Your task to perform on an android device: Do I have any events this weekend? Image 0: 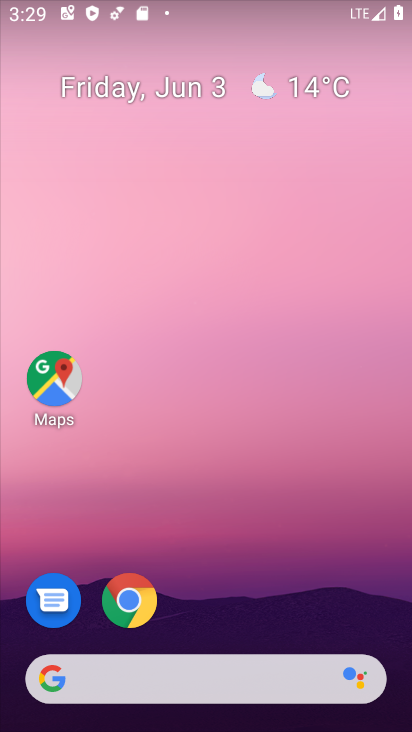
Step 0: drag from (347, 563) to (381, 147)
Your task to perform on an android device: Do I have any events this weekend? Image 1: 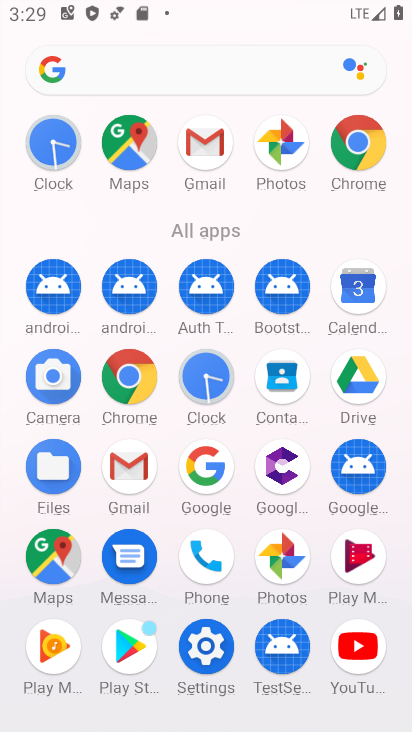
Step 1: click (353, 298)
Your task to perform on an android device: Do I have any events this weekend? Image 2: 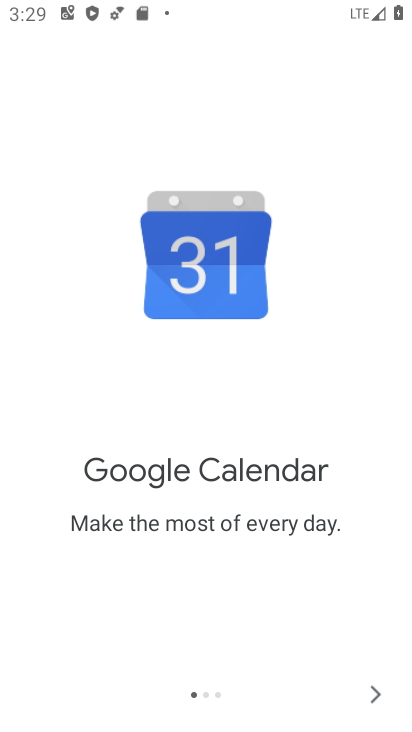
Step 2: click (371, 703)
Your task to perform on an android device: Do I have any events this weekend? Image 3: 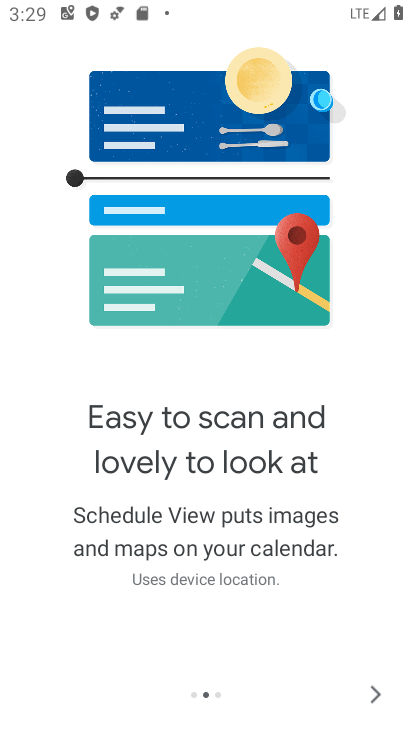
Step 3: click (371, 703)
Your task to perform on an android device: Do I have any events this weekend? Image 4: 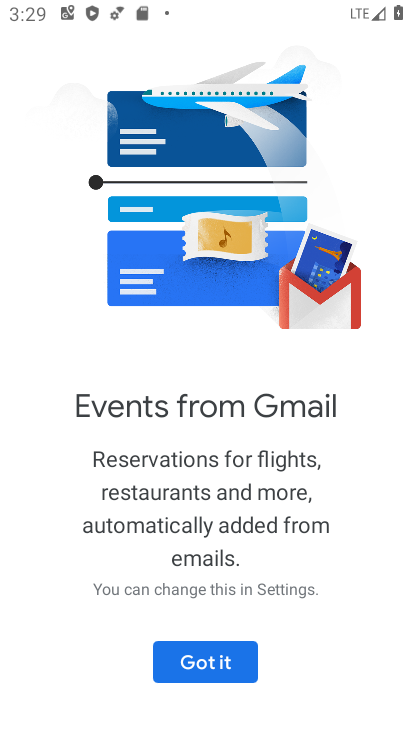
Step 4: click (234, 681)
Your task to perform on an android device: Do I have any events this weekend? Image 5: 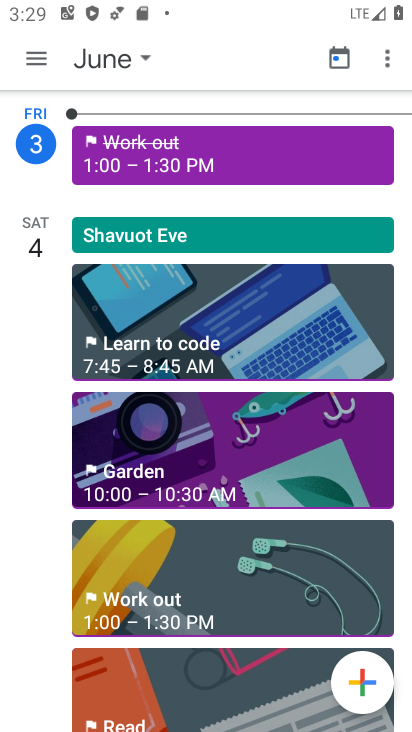
Step 5: click (33, 54)
Your task to perform on an android device: Do I have any events this weekend? Image 6: 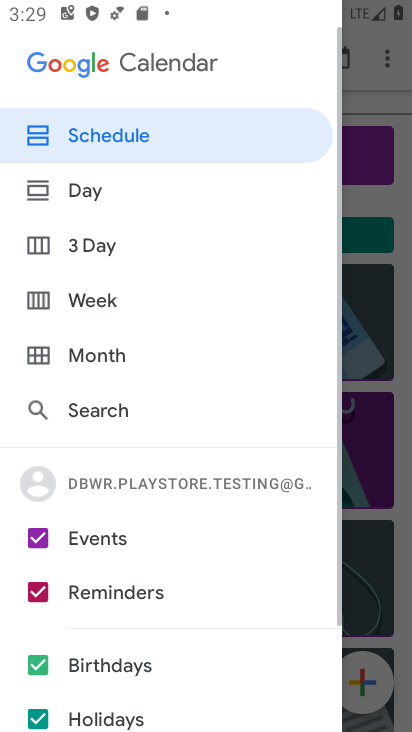
Step 6: click (118, 248)
Your task to perform on an android device: Do I have any events this weekend? Image 7: 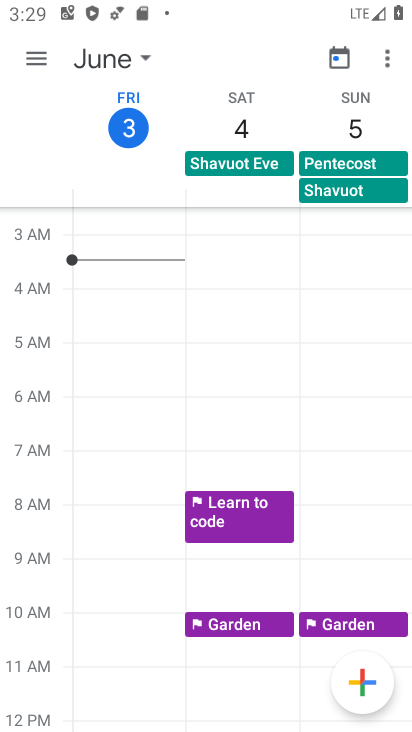
Step 7: task complete